Your task to perform on an android device: Show me productivity apps on the Play Store Image 0: 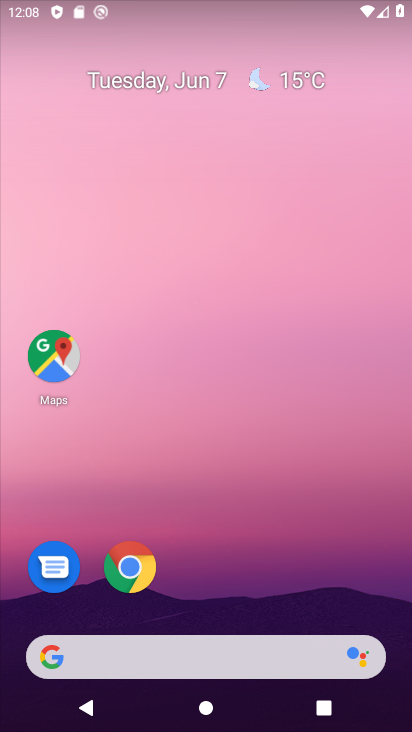
Step 0: press home button
Your task to perform on an android device: Show me productivity apps on the Play Store Image 1: 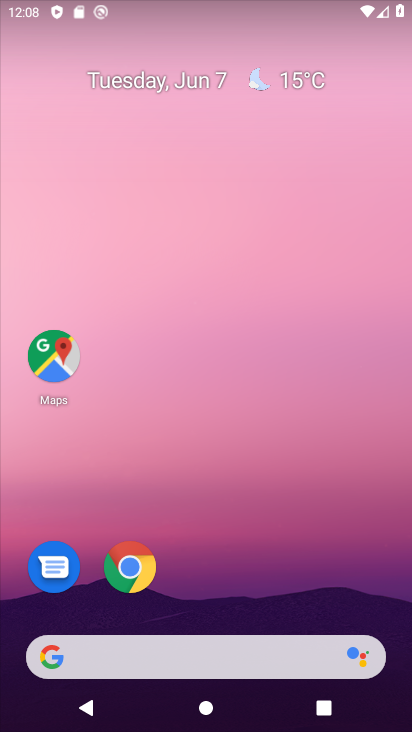
Step 1: drag from (227, 672) to (267, 15)
Your task to perform on an android device: Show me productivity apps on the Play Store Image 2: 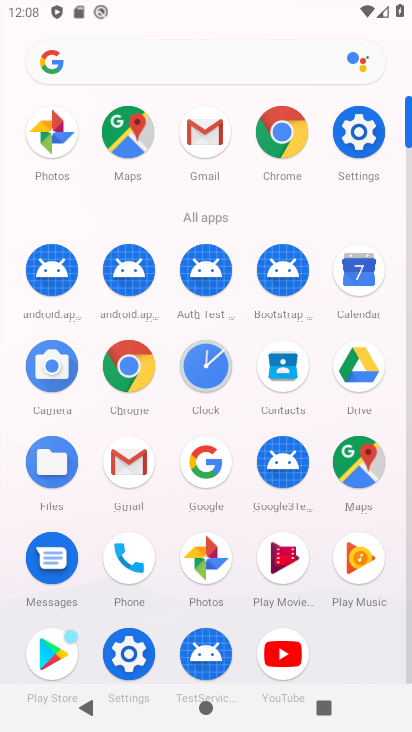
Step 2: click (70, 644)
Your task to perform on an android device: Show me productivity apps on the Play Store Image 3: 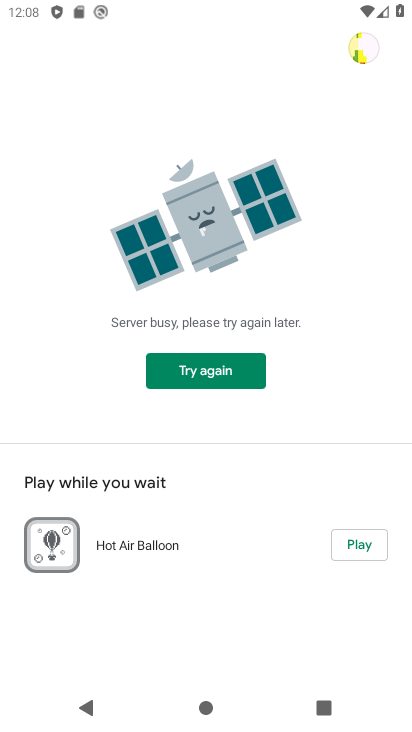
Step 3: click (378, 551)
Your task to perform on an android device: Show me productivity apps on the Play Store Image 4: 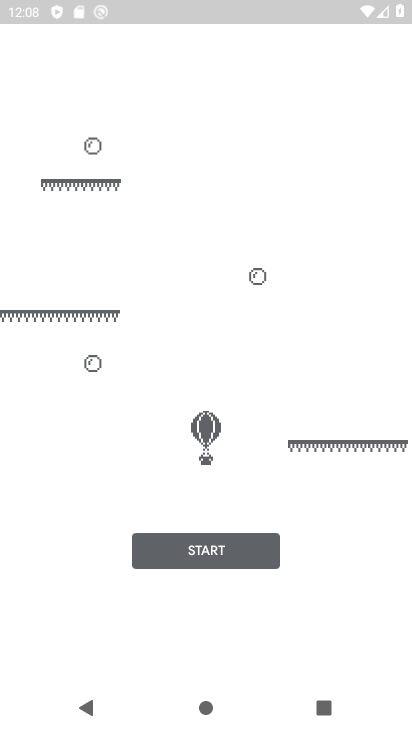
Step 4: click (378, 551)
Your task to perform on an android device: Show me productivity apps on the Play Store Image 5: 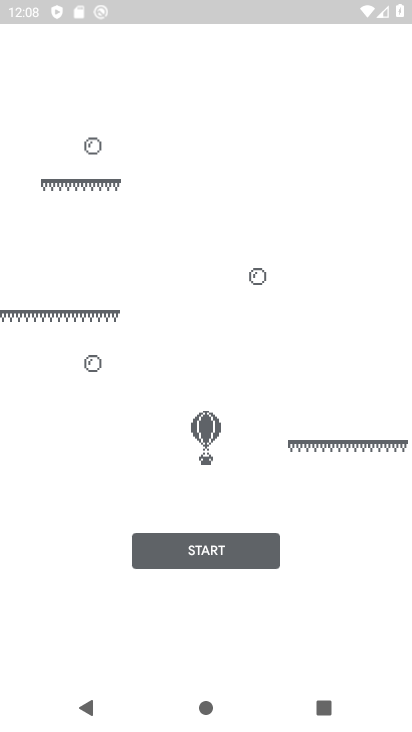
Step 5: click (378, 551)
Your task to perform on an android device: Show me productivity apps on the Play Store Image 6: 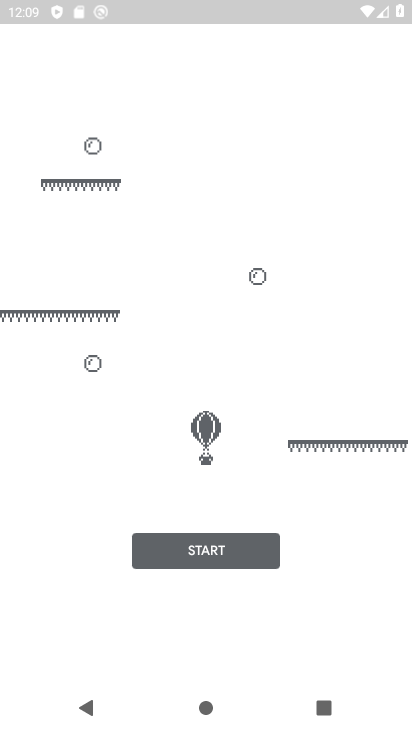
Step 6: click (354, 578)
Your task to perform on an android device: Show me productivity apps on the Play Store Image 7: 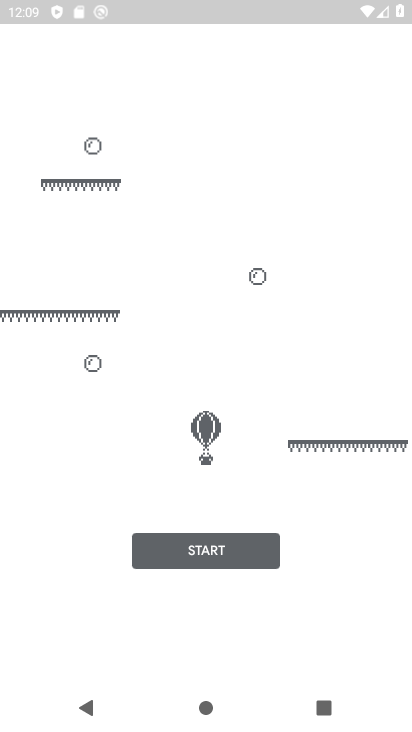
Step 7: task complete